Your task to perform on an android device: Go to CNN.com Image 0: 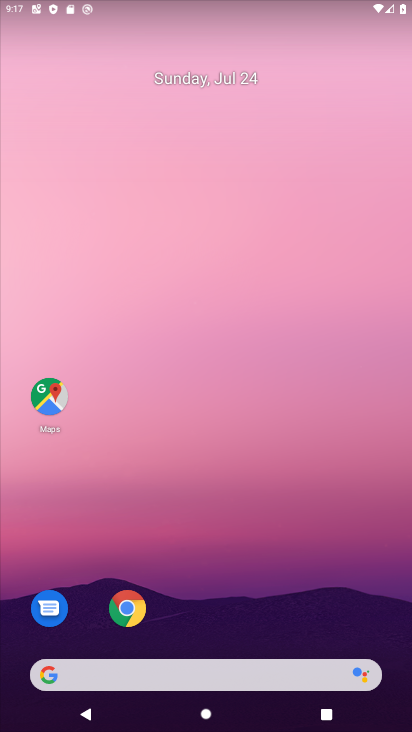
Step 0: press home button
Your task to perform on an android device: Go to CNN.com Image 1: 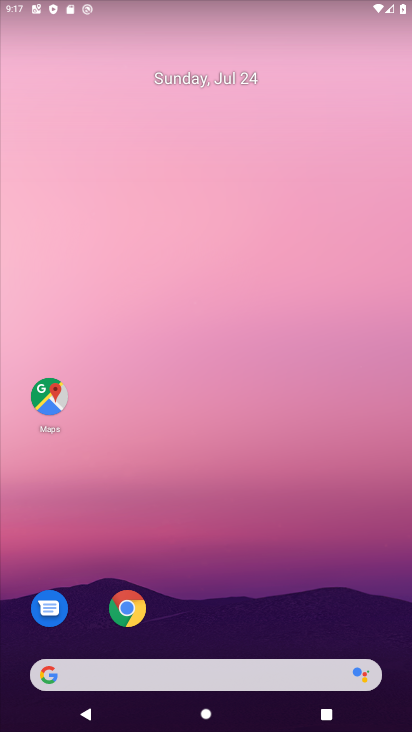
Step 1: click (41, 678)
Your task to perform on an android device: Go to CNN.com Image 2: 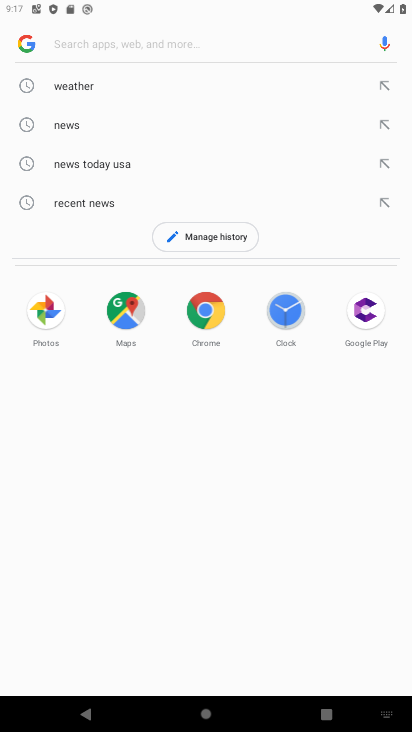
Step 2: type "CNN.com"
Your task to perform on an android device: Go to CNN.com Image 3: 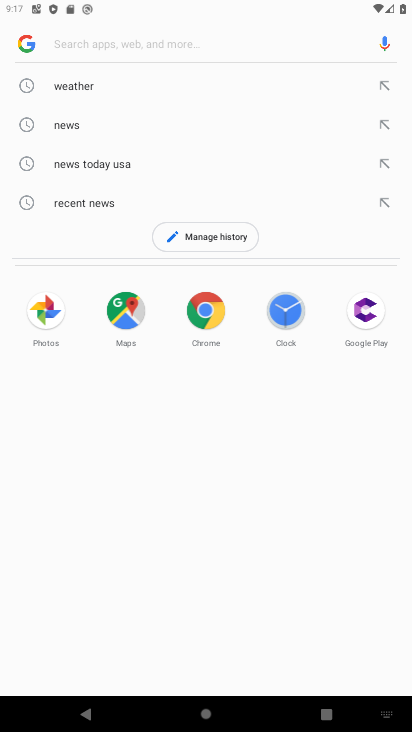
Step 3: click (76, 43)
Your task to perform on an android device: Go to CNN.com Image 4: 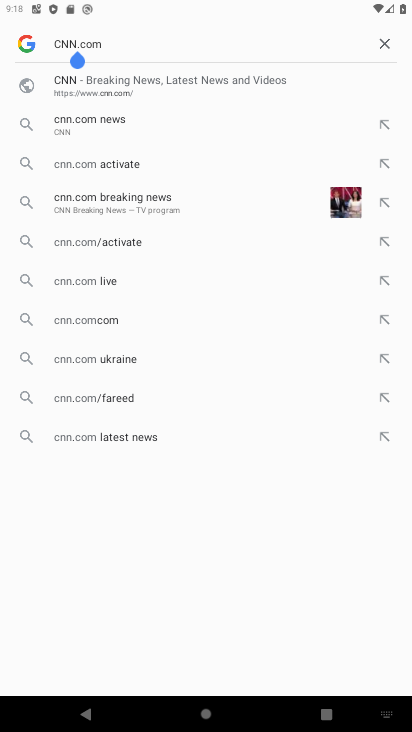
Step 4: click (80, 90)
Your task to perform on an android device: Go to CNN.com Image 5: 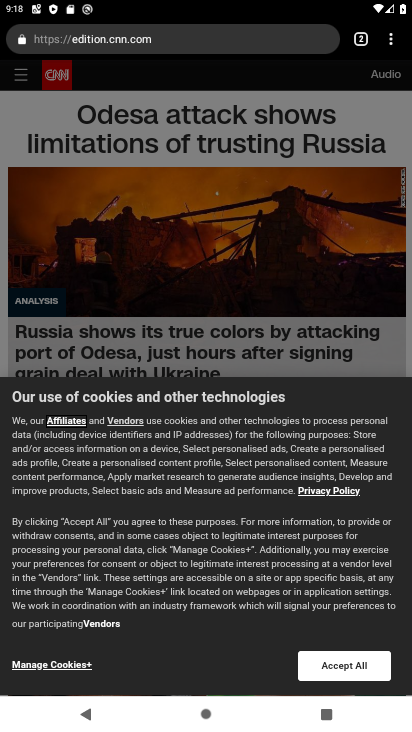
Step 5: task complete